Your task to perform on an android device: stop showing notifications on the lock screen Image 0: 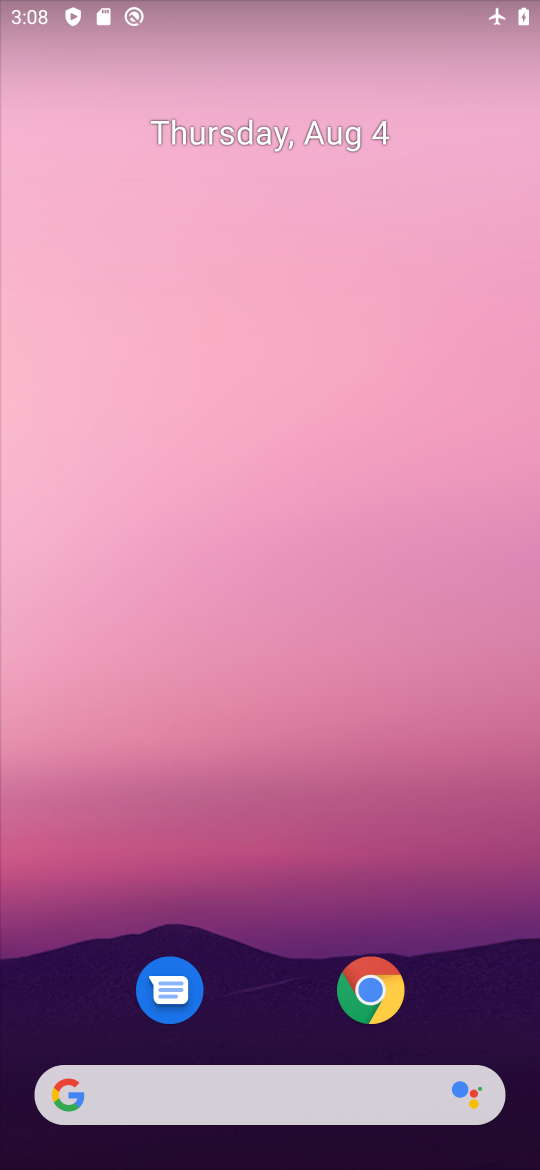
Step 0: drag from (272, 884) to (335, 78)
Your task to perform on an android device: stop showing notifications on the lock screen Image 1: 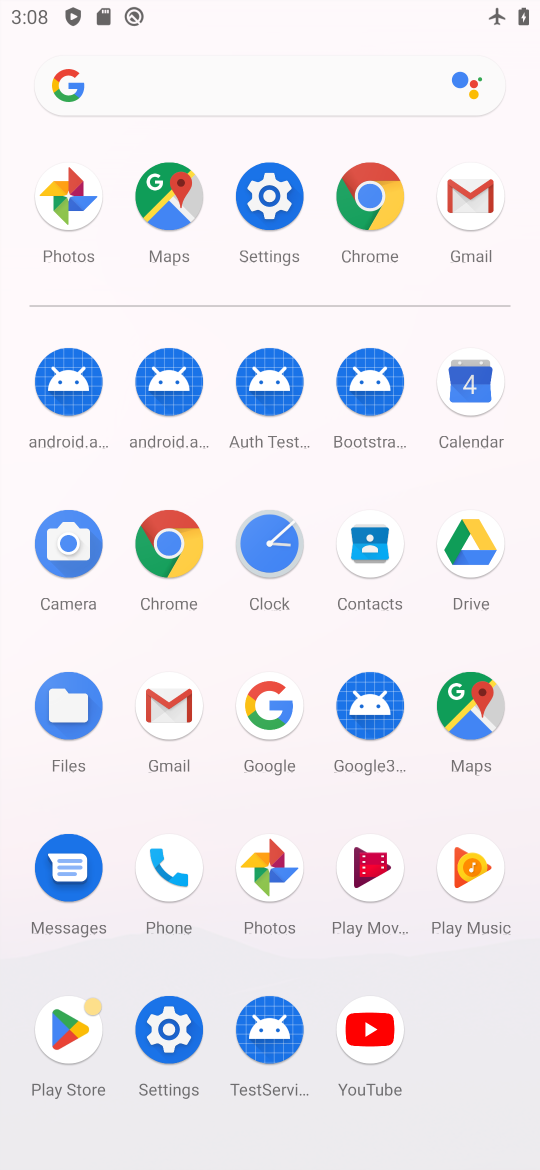
Step 1: click (263, 219)
Your task to perform on an android device: stop showing notifications on the lock screen Image 2: 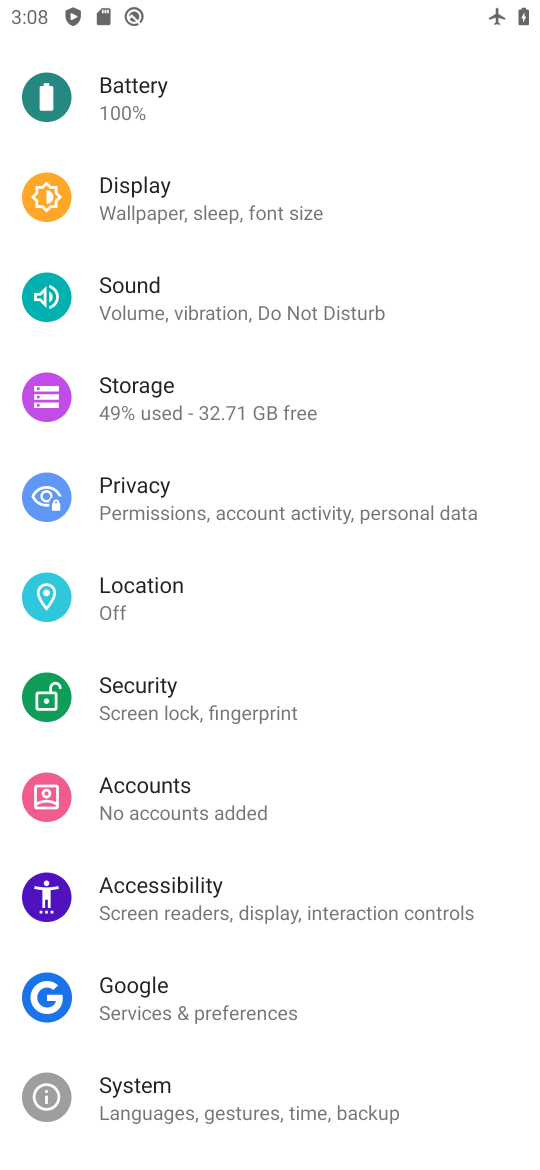
Step 2: drag from (276, 492) to (327, 906)
Your task to perform on an android device: stop showing notifications on the lock screen Image 3: 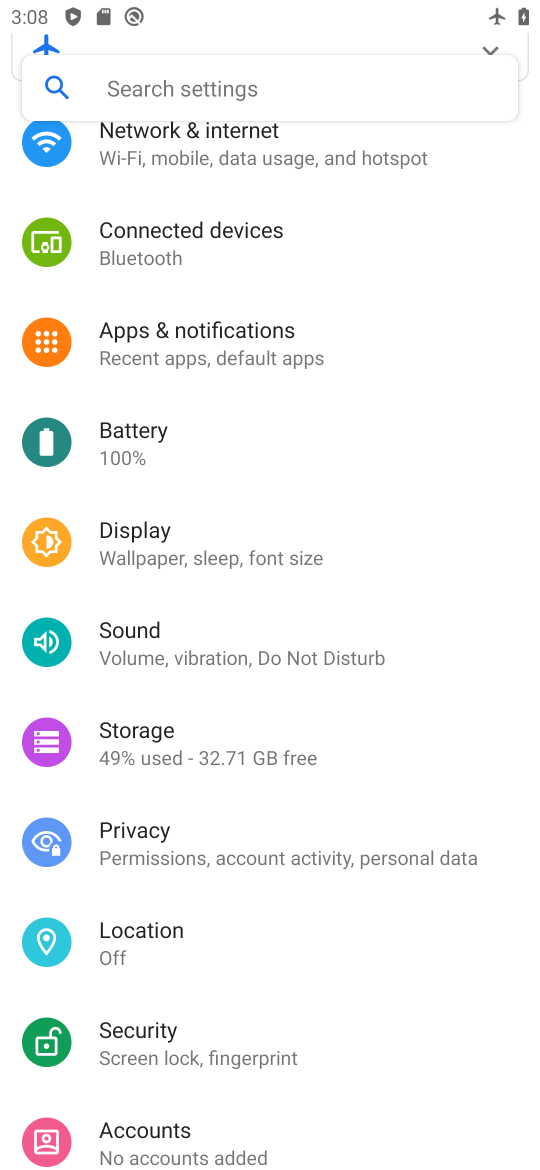
Step 3: click (281, 136)
Your task to perform on an android device: stop showing notifications on the lock screen Image 4: 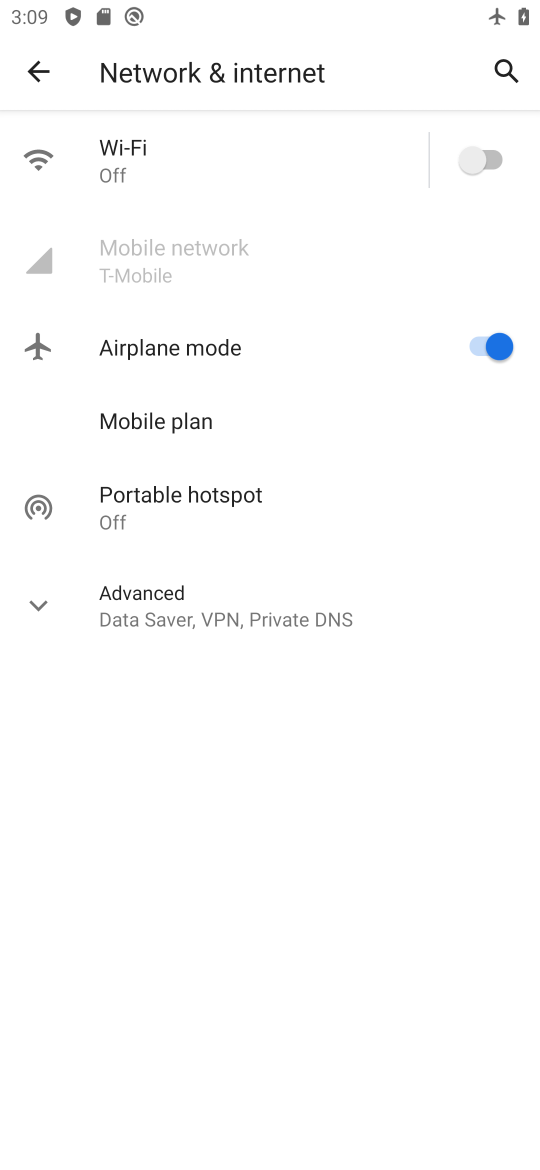
Step 4: task complete